Your task to perform on an android device: visit the assistant section in the google photos Image 0: 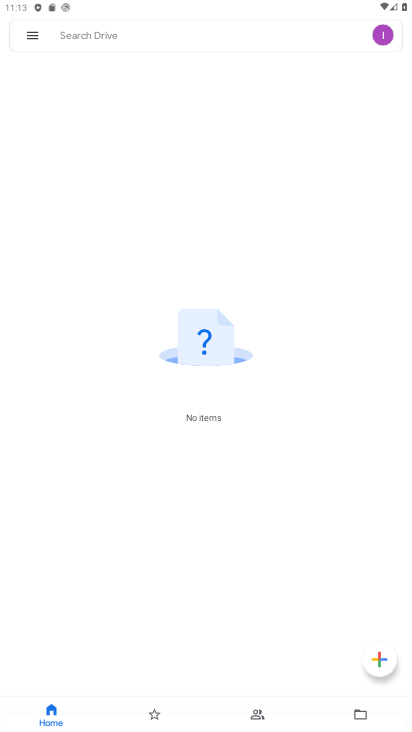
Step 0: press home button
Your task to perform on an android device: visit the assistant section in the google photos Image 1: 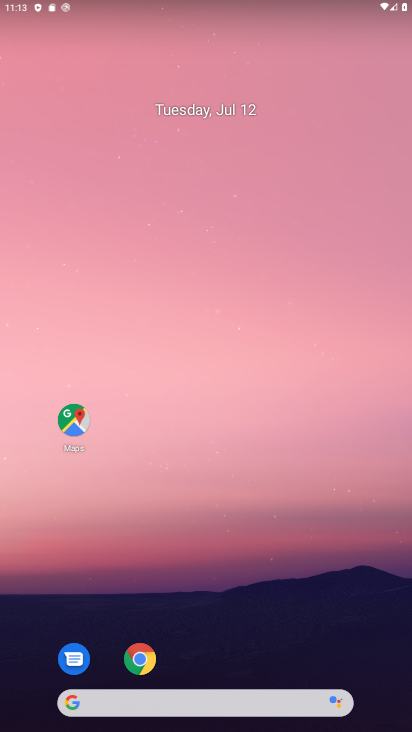
Step 1: drag from (221, 692) to (292, 116)
Your task to perform on an android device: visit the assistant section in the google photos Image 2: 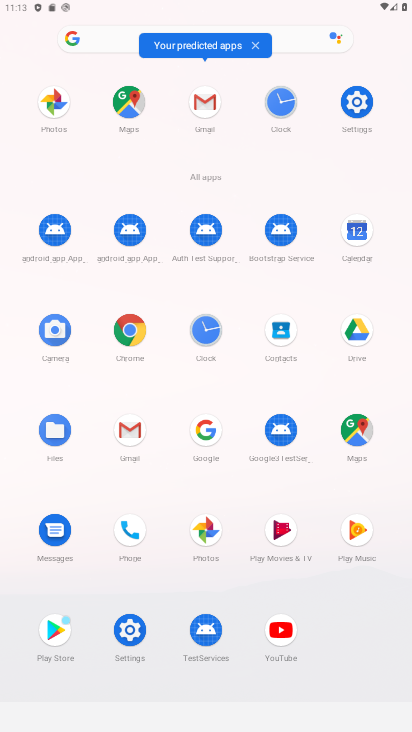
Step 2: click (201, 540)
Your task to perform on an android device: visit the assistant section in the google photos Image 3: 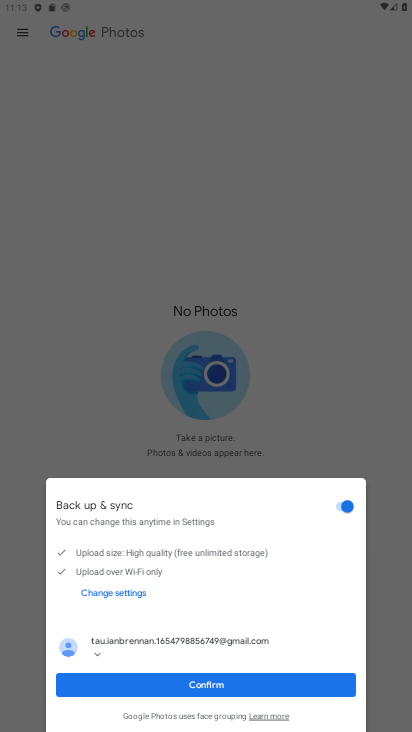
Step 3: click (198, 686)
Your task to perform on an android device: visit the assistant section in the google photos Image 4: 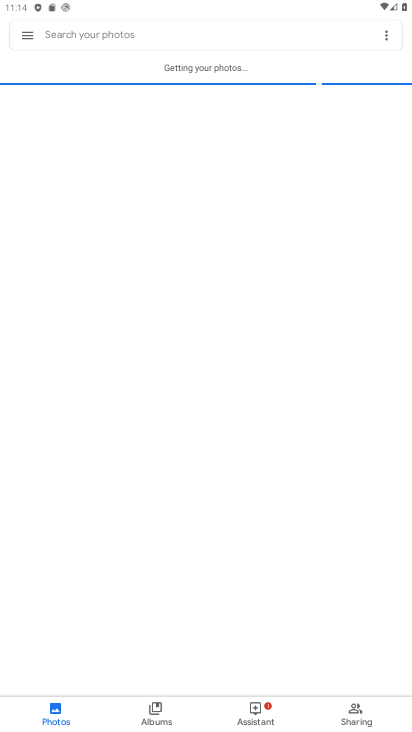
Step 4: click (242, 714)
Your task to perform on an android device: visit the assistant section in the google photos Image 5: 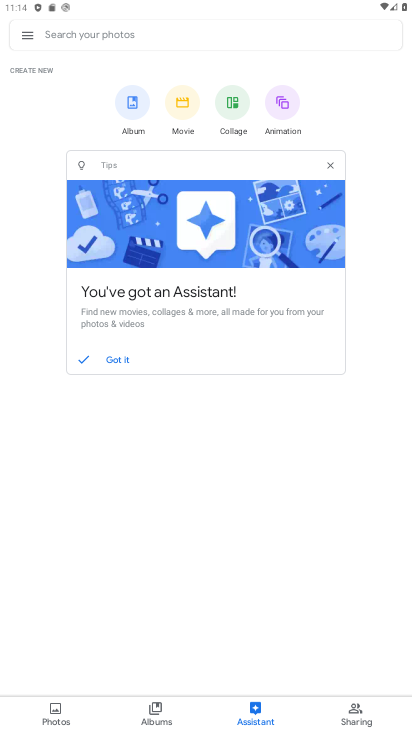
Step 5: task complete